Your task to perform on an android device: open app "Gmail" (install if not already installed) Image 0: 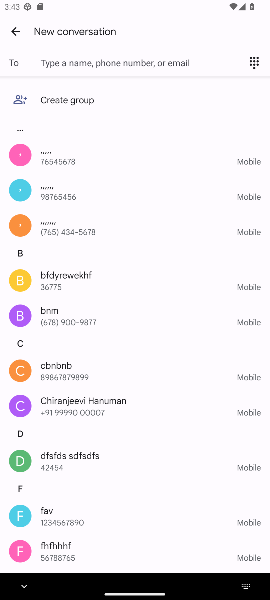
Step 0: press home button
Your task to perform on an android device: open app "Gmail" (install if not already installed) Image 1: 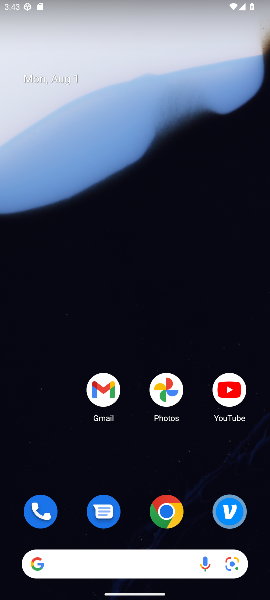
Step 1: drag from (124, 468) to (155, 187)
Your task to perform on an android device: open app "Gmail" (install if not already installed) Image 2: 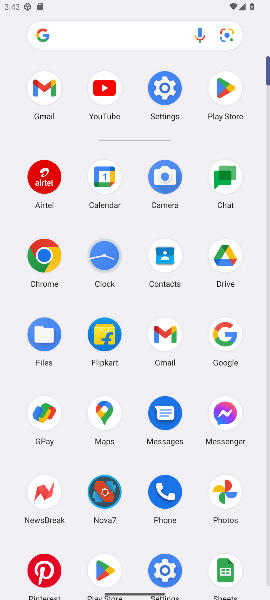
Step 2: click (230, 112)
Your task to perform on an android device: open app "Gmail" (install if not already installed) Image 3: 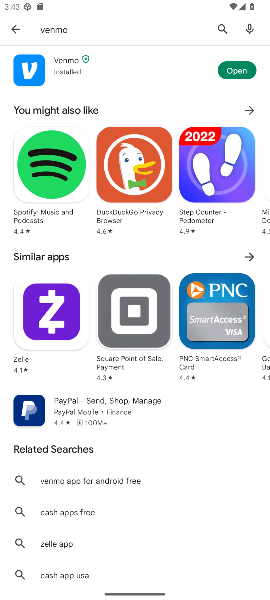
Step 3: click (19, 28)
Your task to perform on an android device: open app "Gmail" (install if not already installed) Image 4: 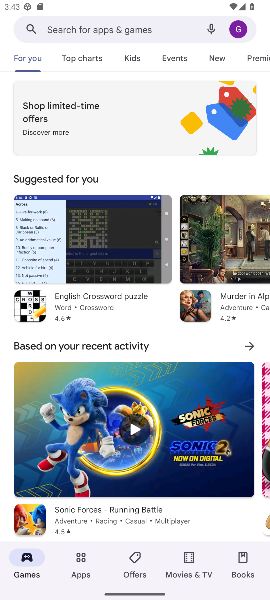
Step 4: click (119, 27)
Your task to perform on an android device: open app "Gmail" (install if not already installed) Image 5: 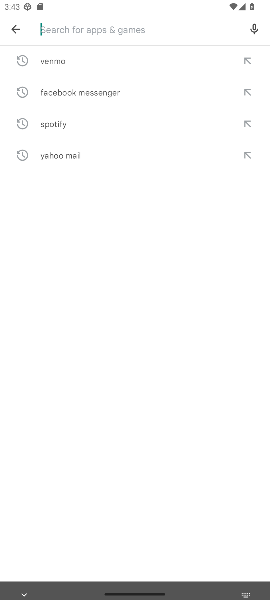
Step 5: click (99, 33)
Your task to perform on an android device: open app "Gmail" (install if not already installed) Image 6: 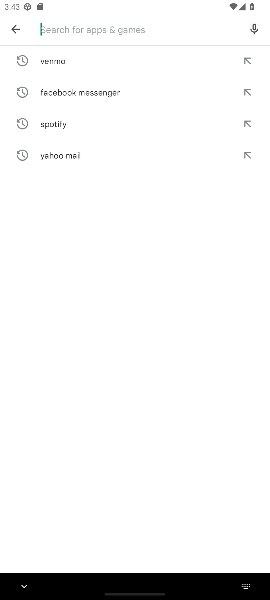
Step 6: click (99, 33)
Your task to perform on an android device: open app "Gmail" (install if not already installed) Image 7: 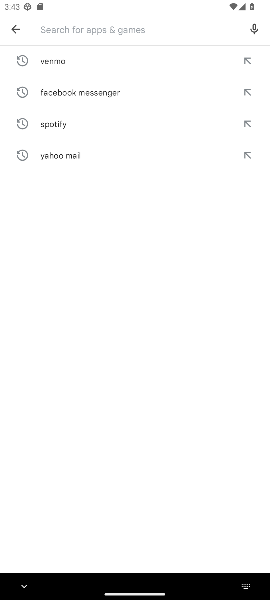
Step 7: type "gmail.com"
Your task to perform on an android device: open app "Gmail" (install if not already installed) Image 8: 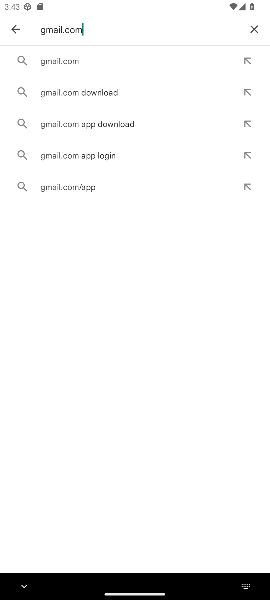
Step 8: click (72, 61)
Your task to perform on an android device: open app "Gmail" (install if not already installed) Image 9: 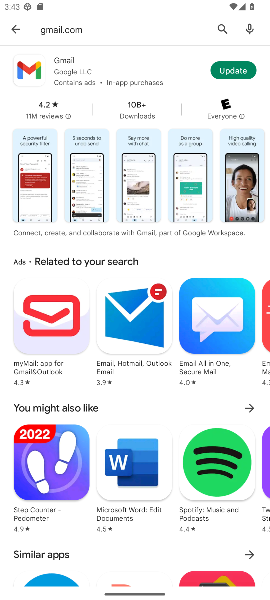
Step 9: click (249, 72)
Your task to perform on an android device: open app "Gmail" (install if not already installed) Image 10: 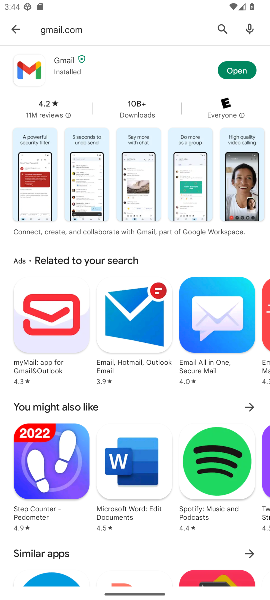
Step 10: click (240, 68)
Your task to perform on an android device: open app "Gmail" (install if not already installed) Image 11: 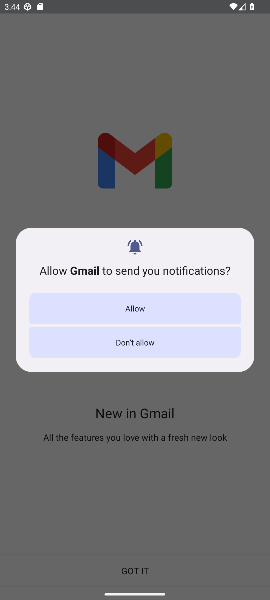
Step 11: click (126, 297)
Your task to perform on an android device: open app "Gmail" (install if not already installed) Image 12: 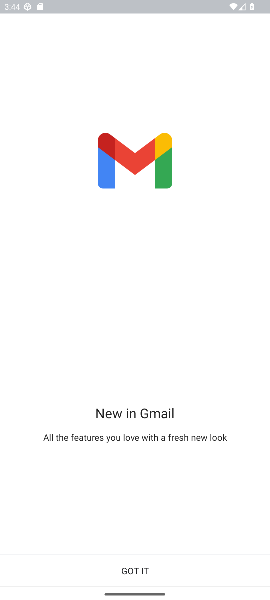
Step 12: click (145, 583)
Your task to perform on an android device: open app "Gmail" (install if not already installed) Image 13: 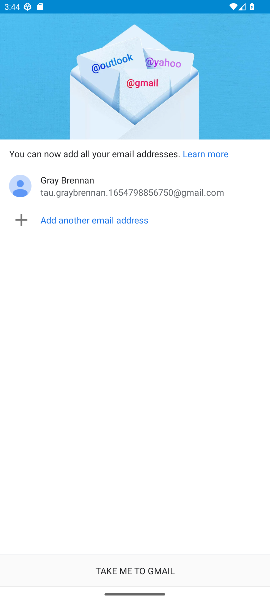
Step 13: click (145, 583)
Your task to perform on an android device: open app "Gmail" (install if not already installed) Image 14: 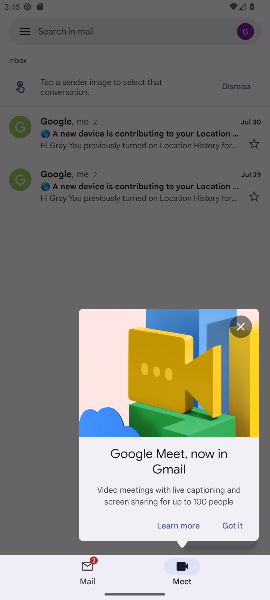
Step 14: task complete